Your task to perform on an android device: Search for the best-rated coffee table on Crate & Barrel Image 0: 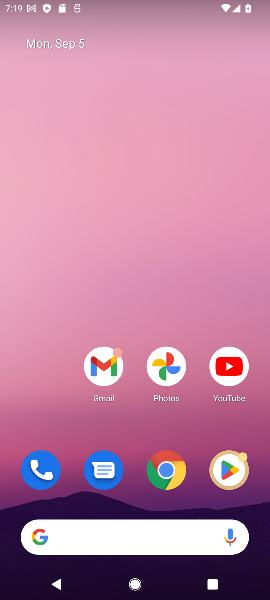
Step 0: drag from (137, 517) to (99, 108)
Your task to perform on an android device: Search for the best-rated coffee table on Crate & Barrel Image 1: 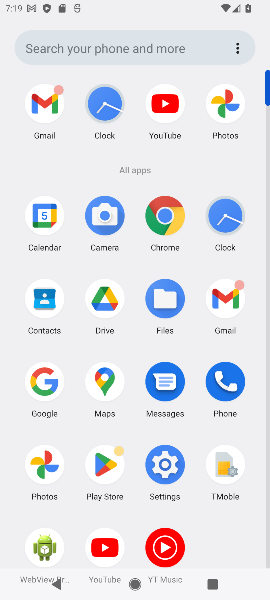
Step 1: click (186, 224)
Your task to perform on an android device: Search for the best-rated coffee table on Crate & Barrel Image 2: 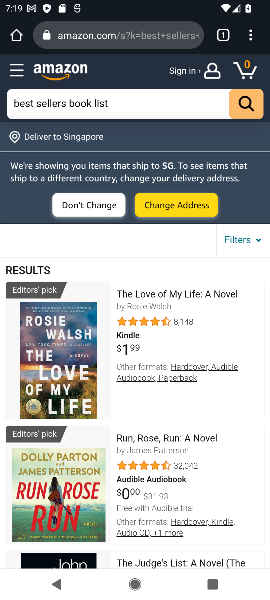
Step 2: click (137, 25)
Your task to perform on an android device: Search for the best-rated coffee table on Crate & Barrel Image 3: 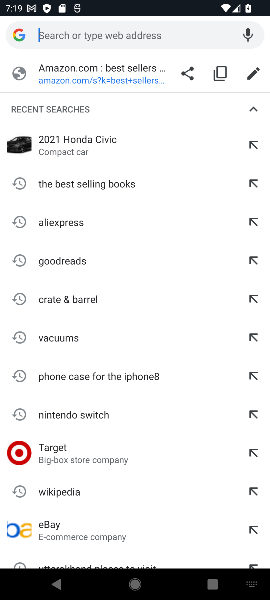
Step 3: click (42, 304)
Your task to perform on an android device: Search for the best-rated coffee table on Crate & Barrel Image 4: 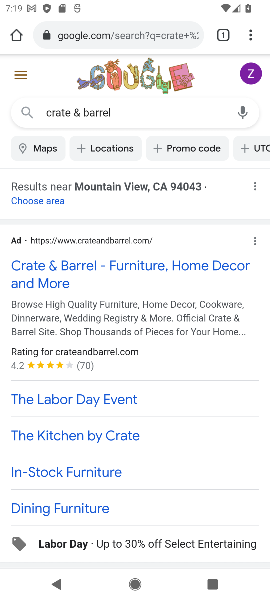
Step 4: click (46, 264)
Your task to perform on an android device: Search for the best-rated coffee table on Crate & Barrel Image 5: 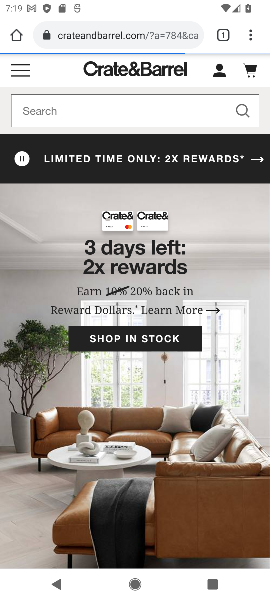
Step 5: click (81, 97)
Your task to perform on an android device: Search for the best-rated coffee table on Crate & Barrel Image 6: 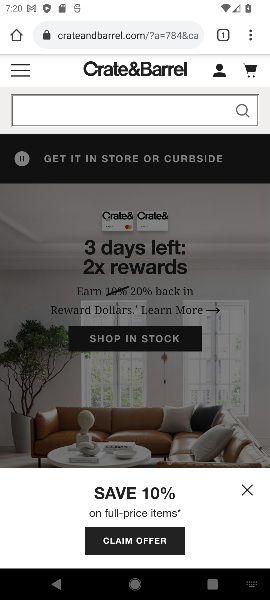
Step 6: type " the best-rated coffee table"
Your task to perform on an android device: Search for the best-rated coffee table on Crate & Barrel Image 7: 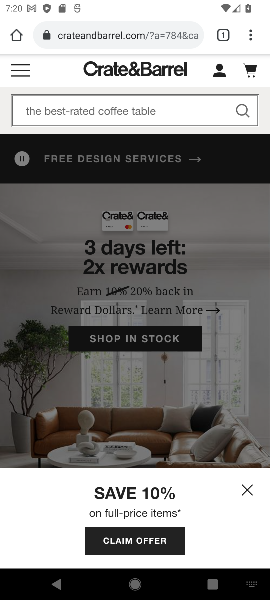
Step 7: click (239, 113)
Your task to perform on an android device: Search for the best-rated coffee table on Crate & Barrel Image 8: 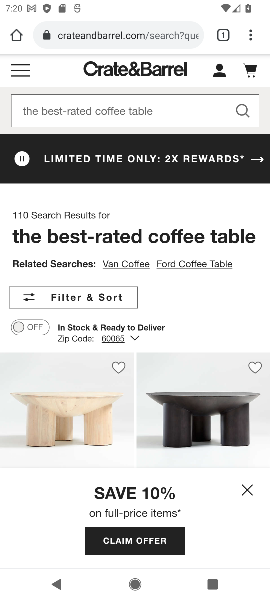
Step 8: drag from (178, 282) to (154, 142)
Your task to perform on an android device: Search for the best-rated coffee table on Crate & Barrel Image 9: 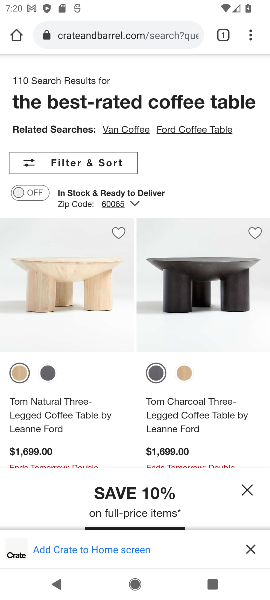
Step 9: drag from (152, 406) to (132, 171)
Your task to perform on an android device: Search for the best-rated coffee table on Crate & Barrel Image 10: 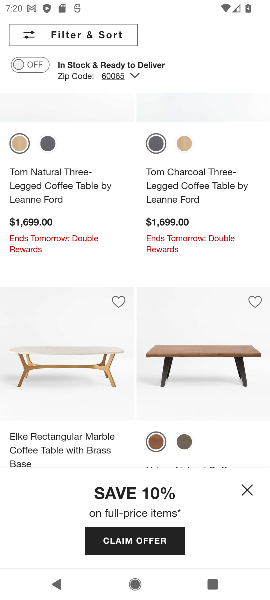
Step 10: click (245, 492)
Your task to perform on an android device: Search for the best-rated coffee table on Crate & Barrel Image 11: 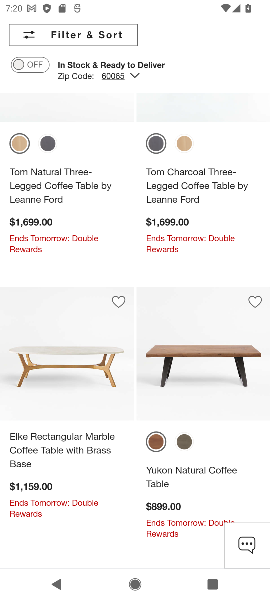
Step 11: task complete